Your task to perform on an android device: Search for sushi restaurants on Maps Image 0: 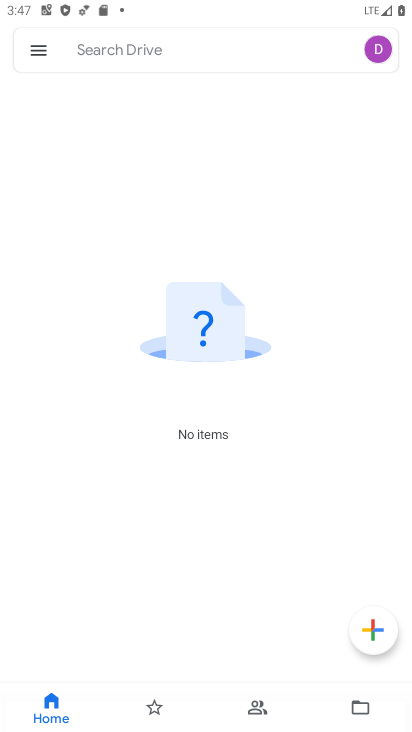
Step 0: press home button
Your task to perform on an android device: Search for sushi restaurants on Maps Image 1: 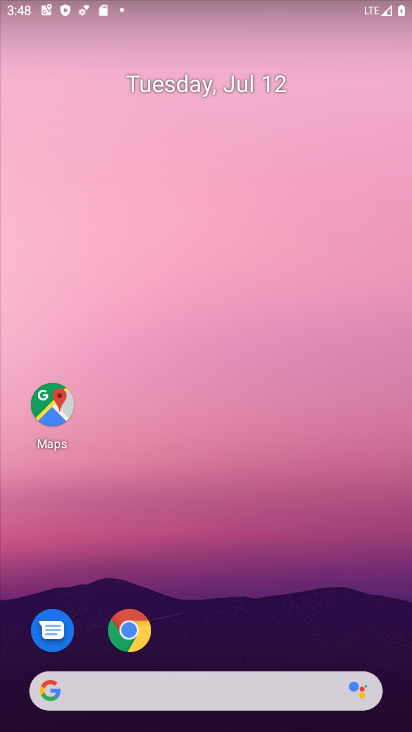
Step 1: drag from (339, 597) to (345, 0)
Your task to perform on an android device: Search for sushi restaurants on Maps Image 2: 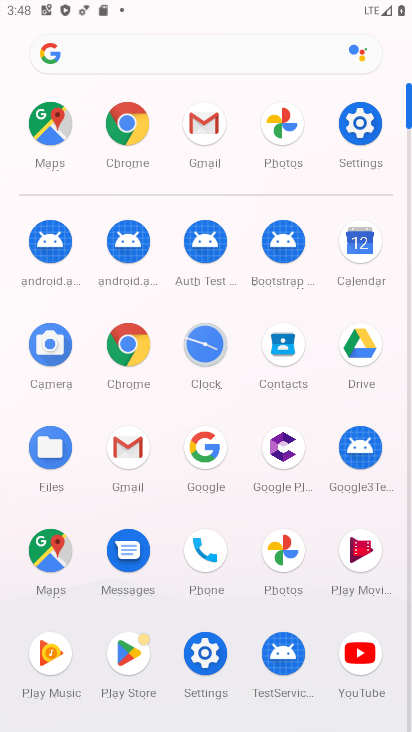
Step 2: click (60, 547)
Your task to perform on an android device: Search for sushi restaurants on Maps Image 3: 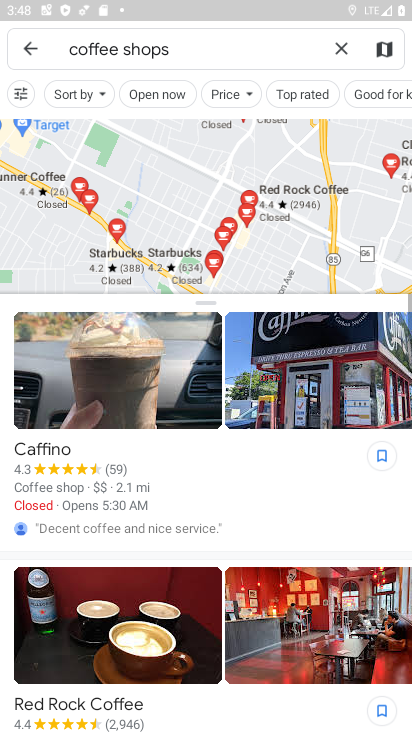
Step 3: press back button
Your task to perform on an android device: Search for sushi restaurants on Maps Image 4: 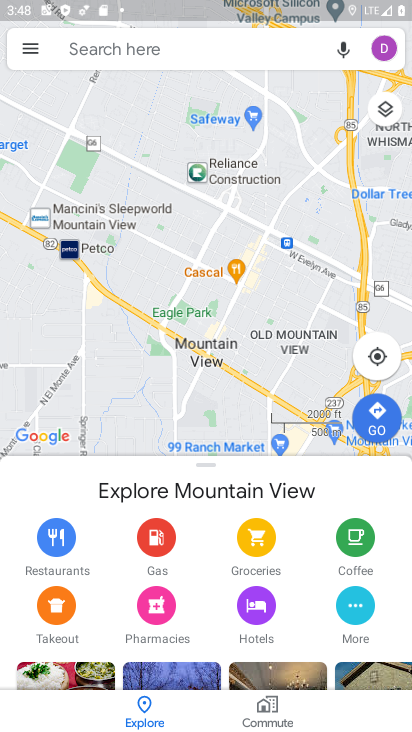
Step 4: click (186, 49)
Your task to perform on an android device: Search for sushi restaurants on Maps Image 5: 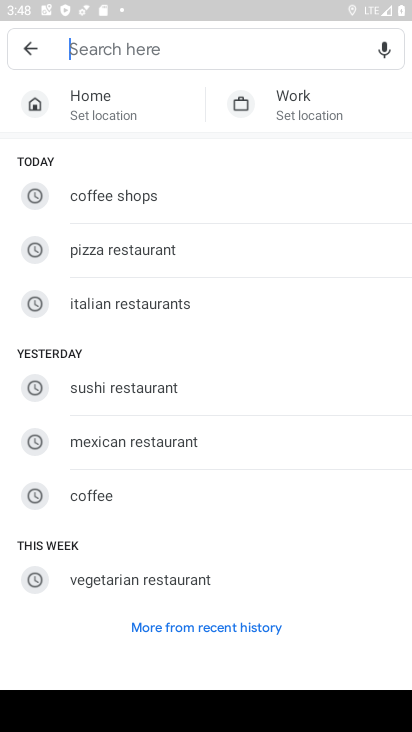
Step 5: click (150, 394)
Your task to perform on an android device: Search for sushi restaurants on Maps Image 6: 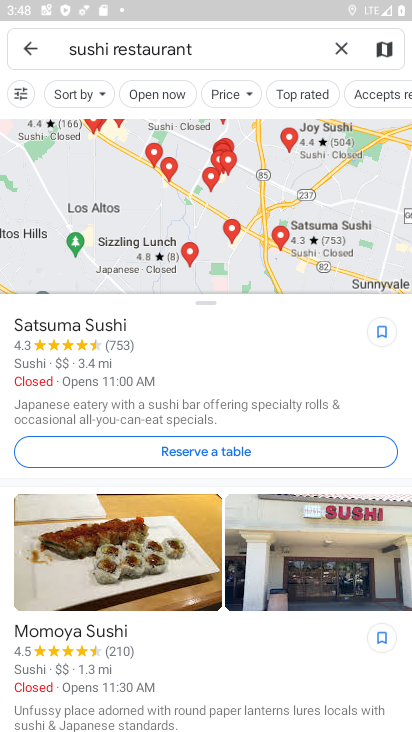
Step 6: task complete